Your task to perform on an android device: Open sound settings Image 0: 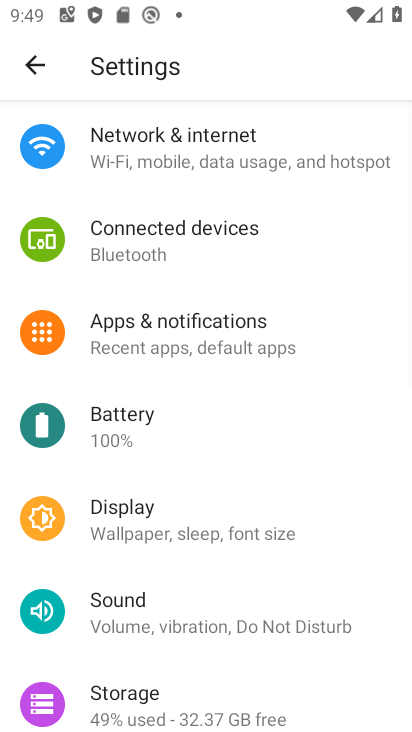
Step 0: press home button
Your task to perform on an android device: Open sound settings Image 1: 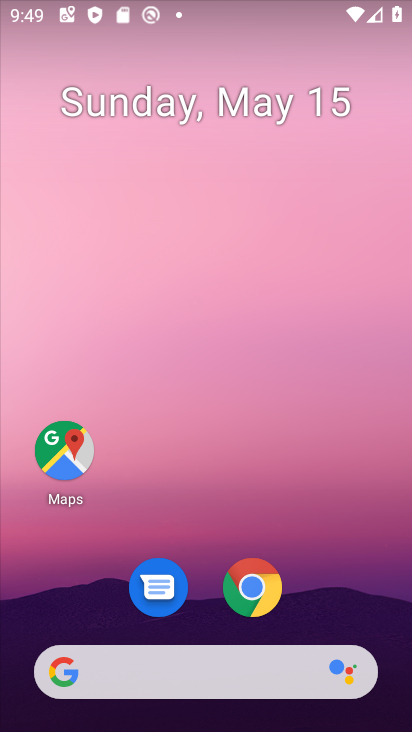
Step 1: drag from (403, 649) to (264, 35)
Your task to perform on an android device: Open sound settings Image 2: 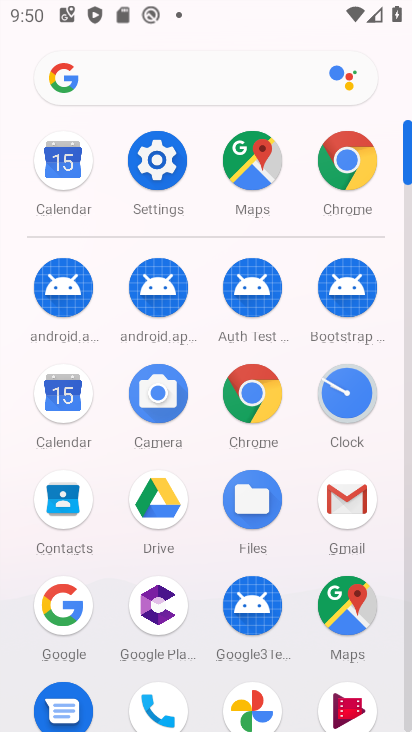
Step 2: click (153, 188)
Your task to perform on an android device: Open sound settings Image 3: 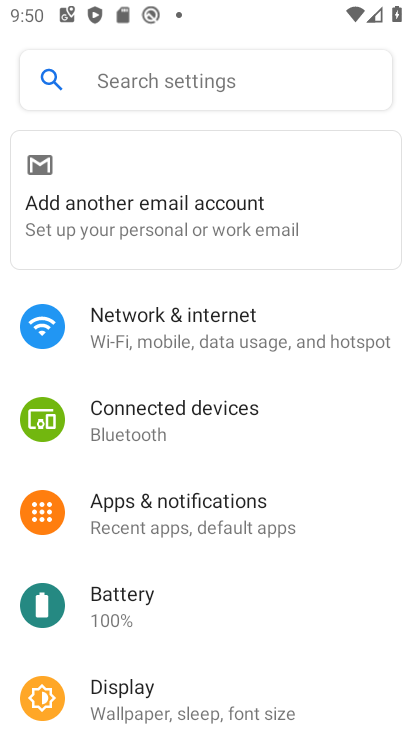
Step 3: drag from (178, 643) to (235, 307)
Your task to perform on an android device: Open sound settings Image 4: 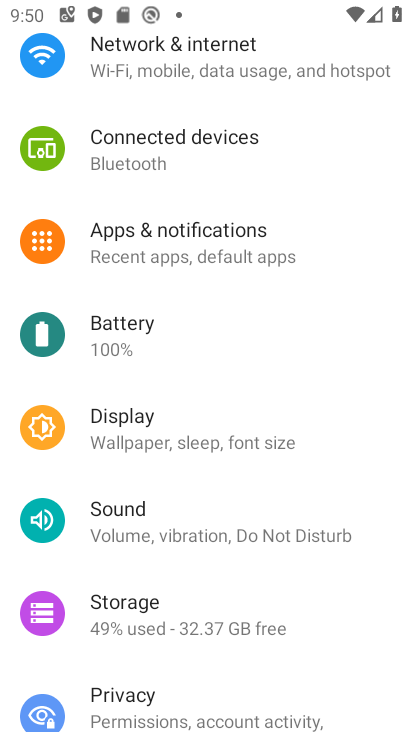
Step 4: click (186, 523)
Your task to perform on an android device: Open sound settings Image 5: 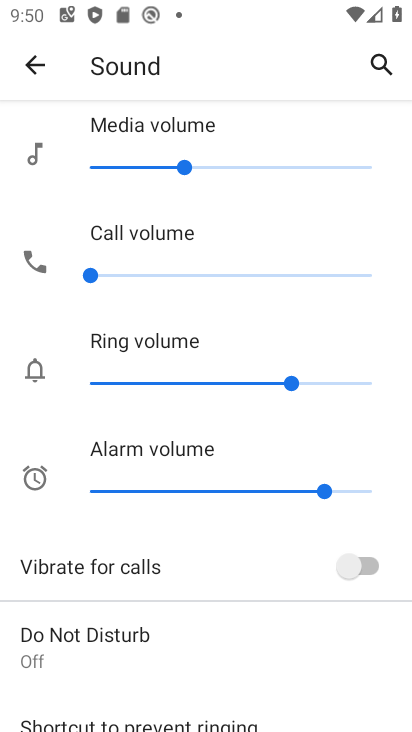
Step 5: task complete